Your task to perform on an android device: Open Amazon Image 0: 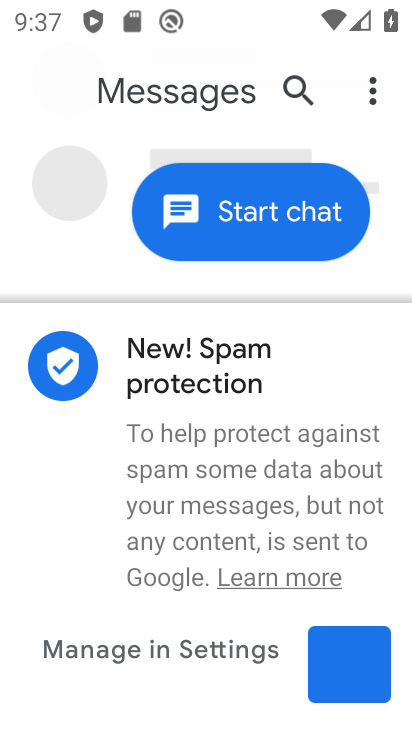
Step 0: press home button
Your task to perform on an android device: Open Amazon Image 1: 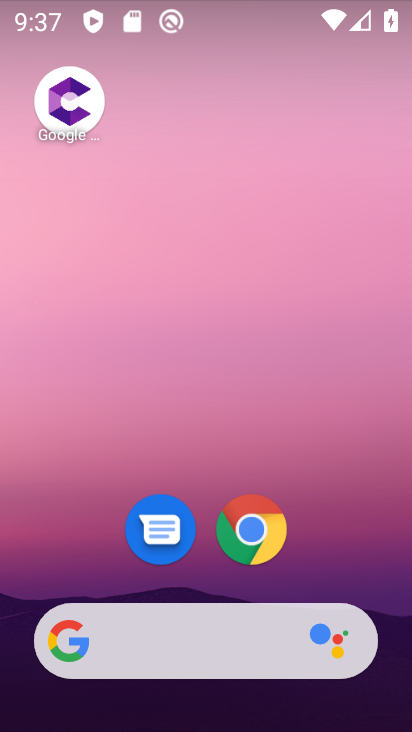
Step 1: click (245, 531)
Your task to perform on an android device: Open Amazon Image 2: 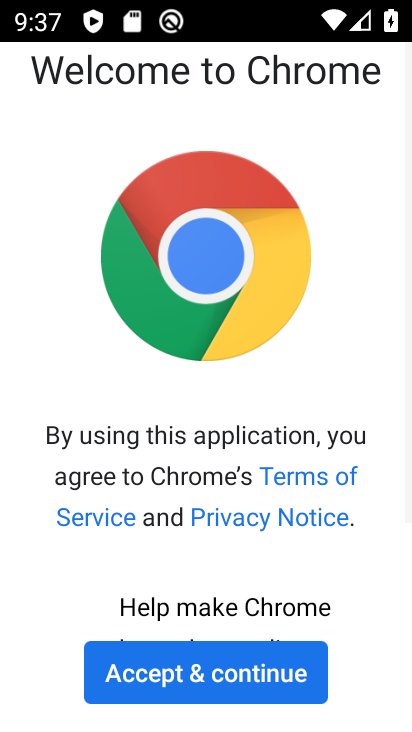
Step 2: click (201, 664)
Your task to perform on an android device: Open Amazon Image 3: 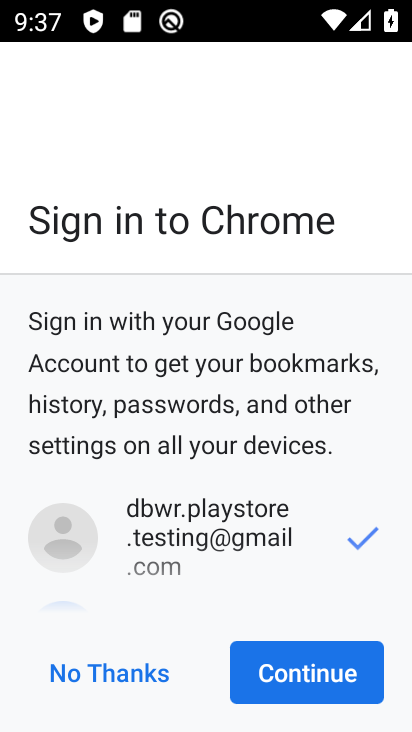
Step 3: click (321, 678)
Your task to perform on an android device: Open Amazon Image 4: 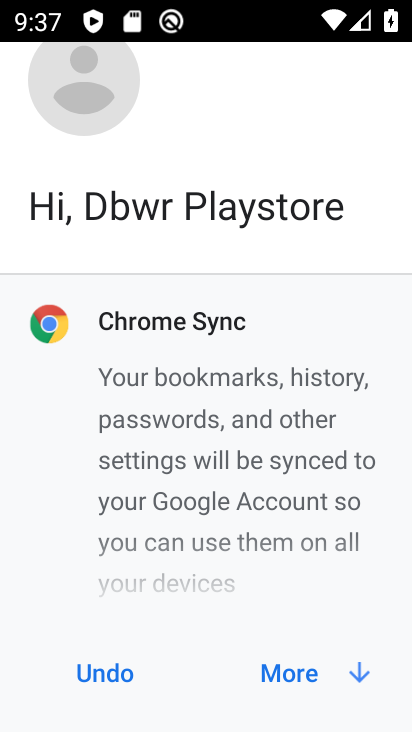
Step 4: click (284, 666)
Your task to perform on an android device: Open Amazon Image 5: 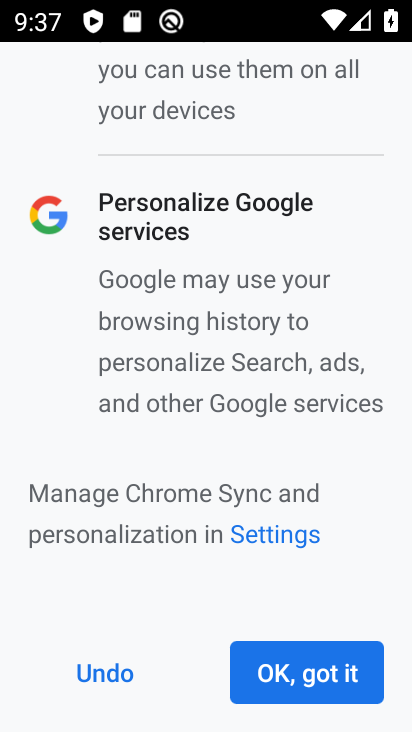
Step 5: click (279, 655)
Your task to perform on an android device: Open Amazon Image 6: 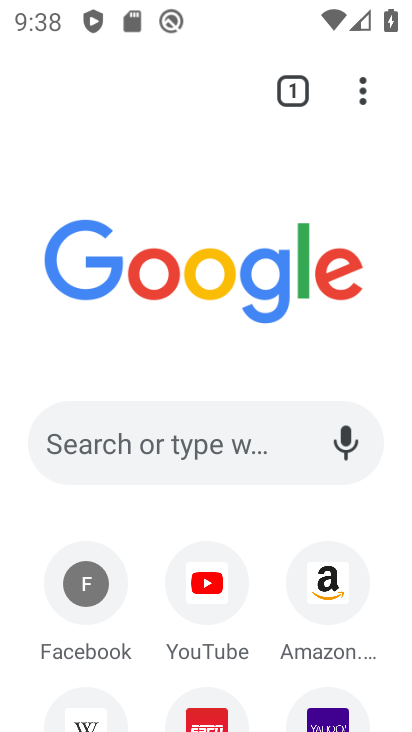
Step 6: click (333, 588)
Your task to perform on an android device: Open Amazon Image 7: 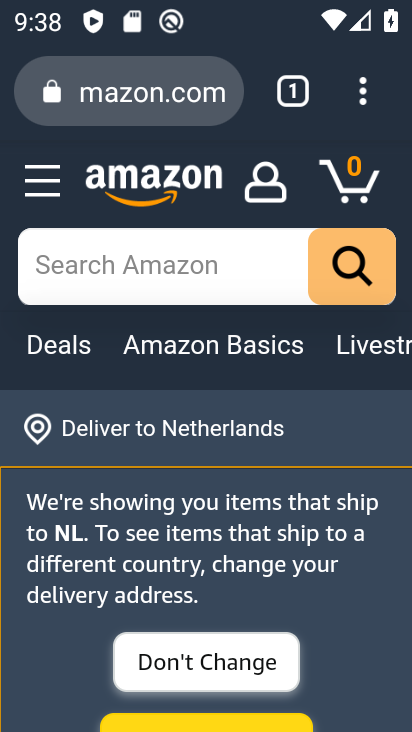
Step 7: task complete